Your task to perform on an android device: Add "acer predator" to the cart on costco, then select checkout. Image 0: 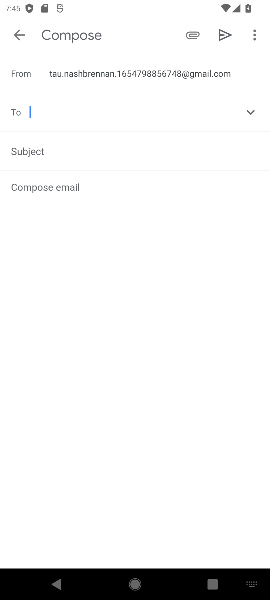
Step 0: press home button
Your task to perform on an android device: Add "acer predator" to the cart on costco, then select checkout. Image 1: 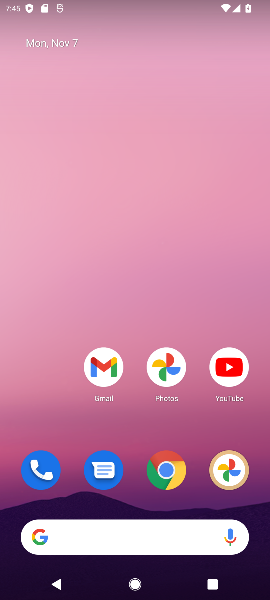
Step 1: click (169, 469)
Your task to perform on an android device: Add "acer predator" to the cart on costco, then select checkout. Image 2: 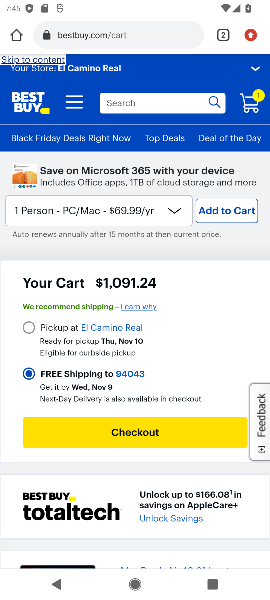
Step 2: click (102, 31)
Your task to perform on an android device: Add "acer predator" to the cart on costco, then select checkout. Image 3: 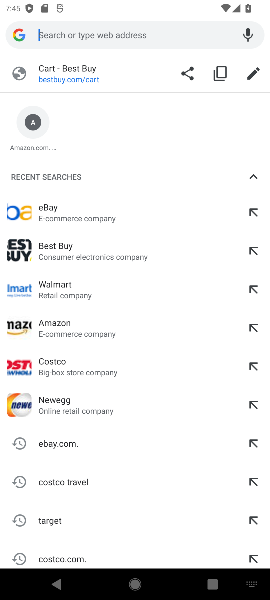
Step 3: type "costco"
Your task to perform on an android device: Add "acer predator" to the cart on costco, then select checkout. Image 4: 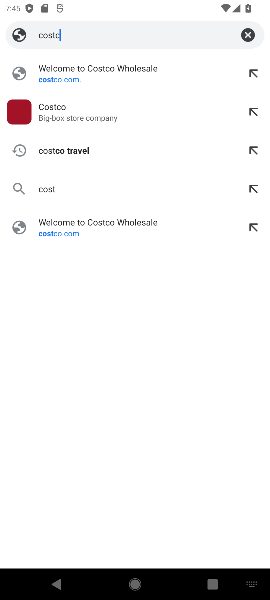
Step 4: type ""
Your task to perform on an android device: Add "acer predator" to the cart on costco, then select checkout. Image 5: 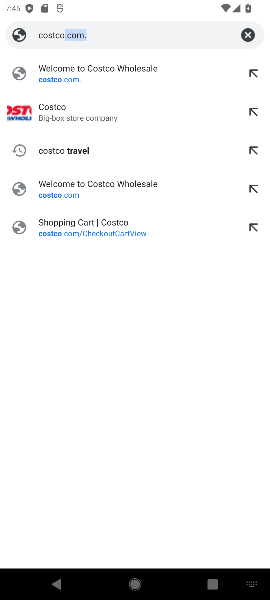
Step 5: click (97, 121)
Your task to perform on an android device: Add "acer predator" to the cart on costco, then select checkout. Image 6: 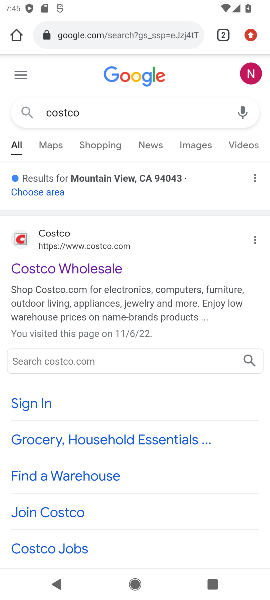
Step 6: click (77, 270)
Your task to perform on an android device: Add "acer predator" to the cart on costco, then select checkout. Image 7: 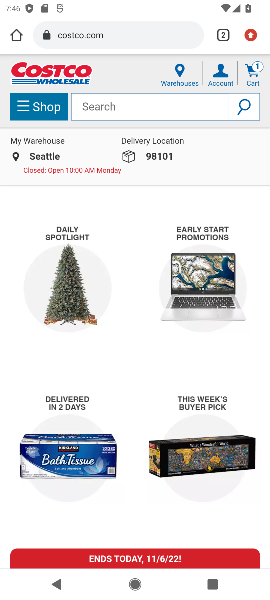
Step 7: click (171, 108)
Your task to perform on an android device: Add "acer predator" to the cart on costco, then select checkout. Image 8: 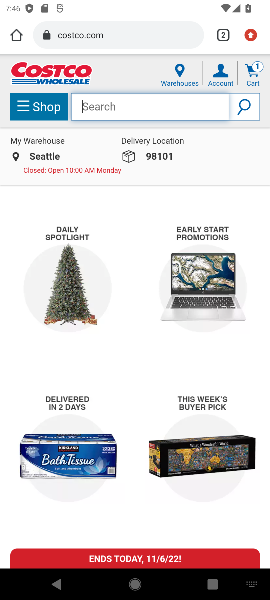
Step 8: type "acer predator"
Your task to perform on an android device: Add "acer predator" to the cart on costco, then select checkout. Image 9: 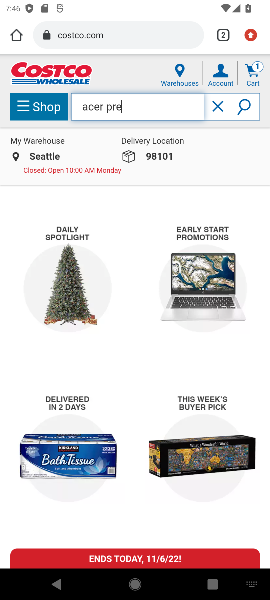
Step 9: type ""
Your task to perform on an android device: Add "acer predator" to the cart on costco, then select checkout. Image 10: 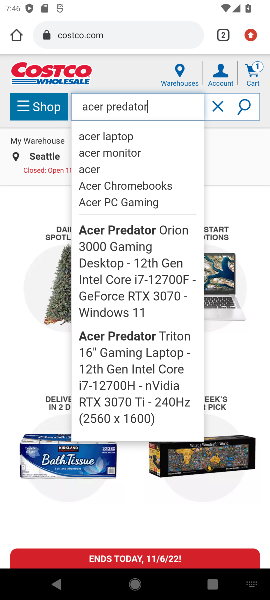
Step 10: click (247, 109)
Your task to perform on an android device: Add "acer predator" to the cart on costco, then select checkout. Image 11: 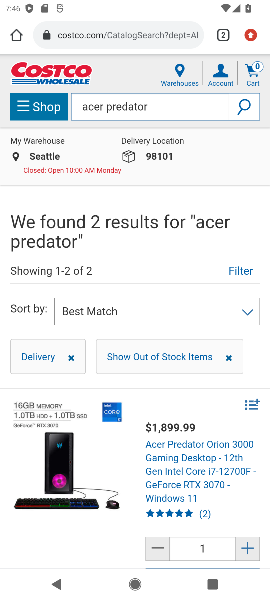
Step 11: drag from (80, 519) to (153, 199)
Your task to perform on an android device: Add "acer predator" to the cart on costco, then select checkout. Image 12: 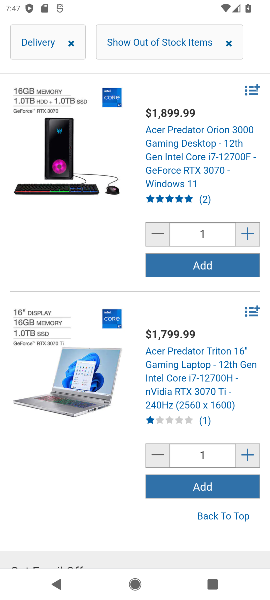
Step 12: click (186, 266)
Your task to perform on an android device: Add "acer predator" to the cart on costco, then select checkout. Image 13: 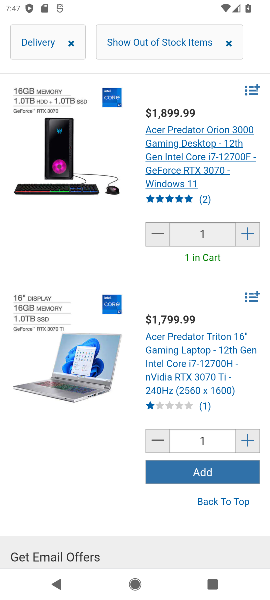
Step 13: task complete